Your task to perform on an android device: Clear the cart on costco. Image 0: 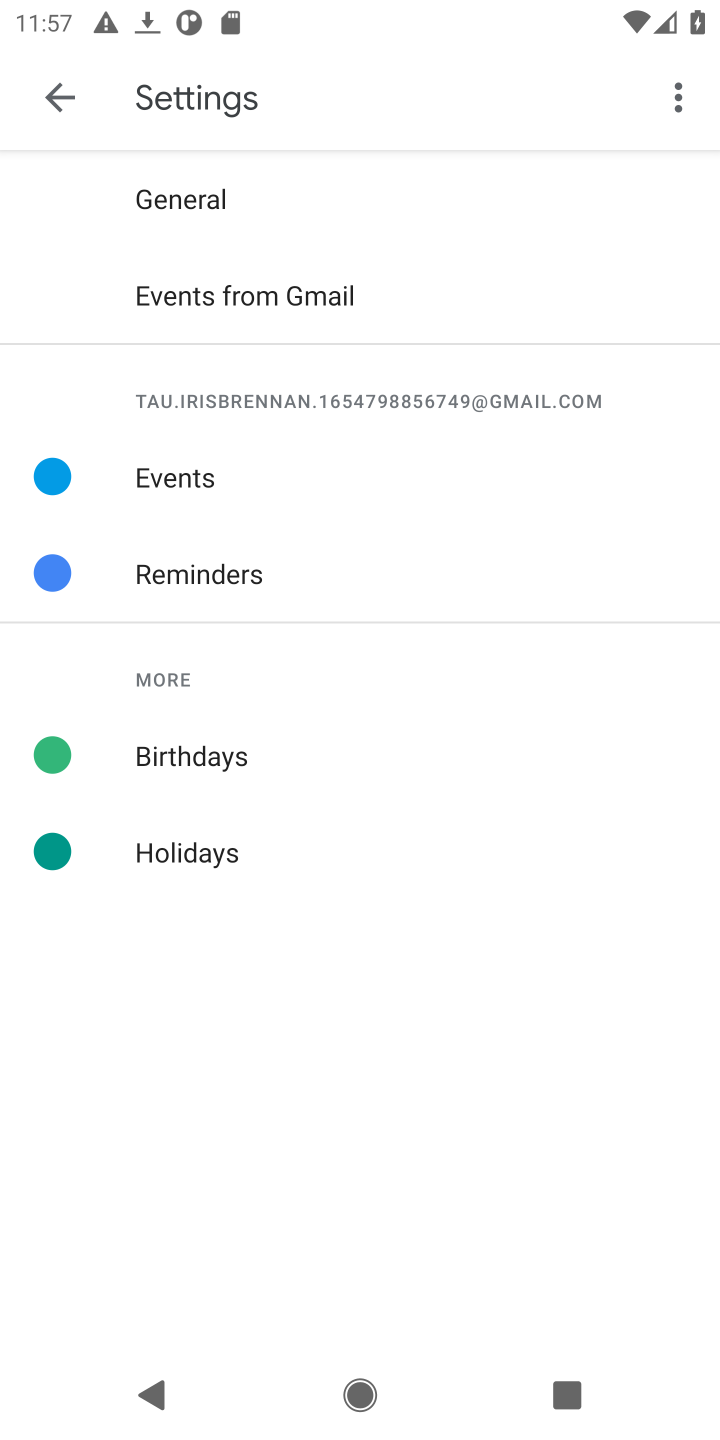
Step 0: press home button
Your task to perform on an android device: Clear the cart on costco. Image 1: 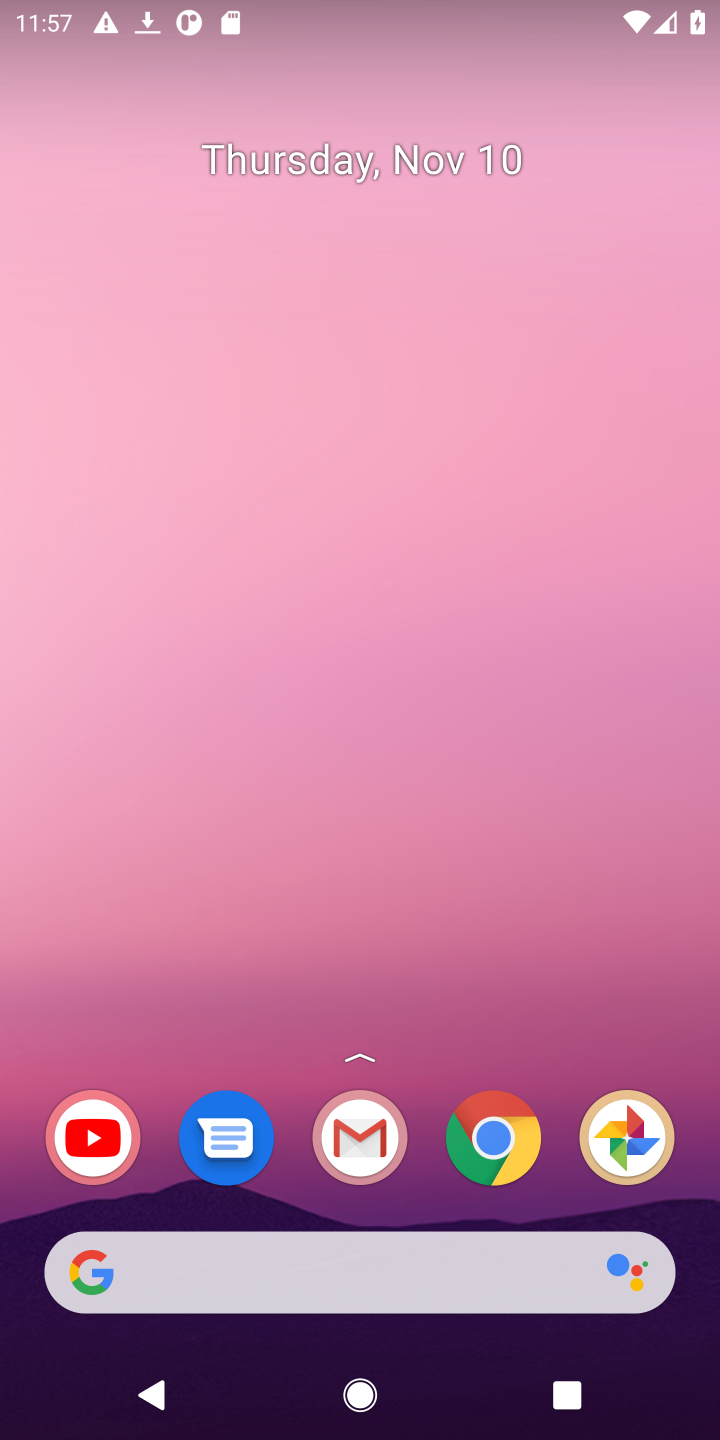
Step 1: click (504, 1154)
Your task to perform on an android device: Clear the cart on costco. Image 2: 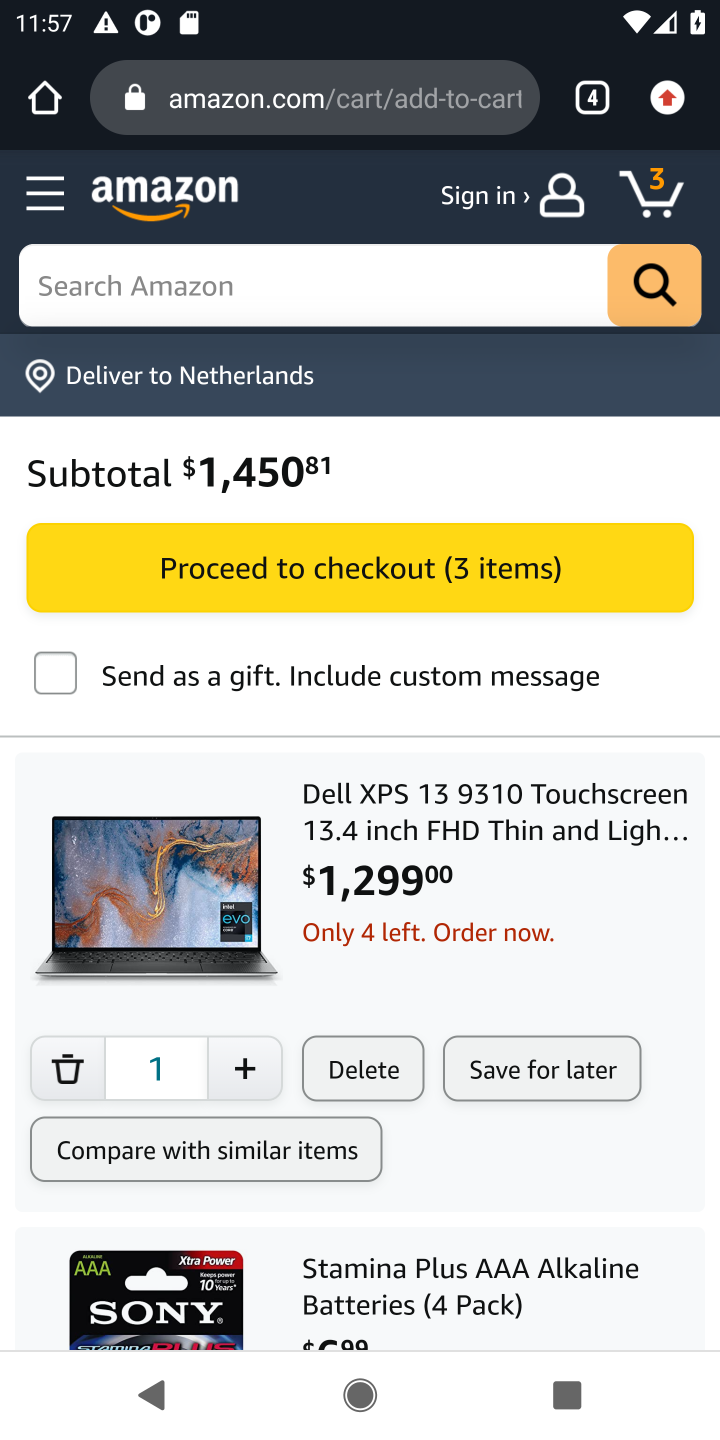
Step 2: click (649, 208)
Your task to perform on an android device: Clear the cart on costco. Image 3: 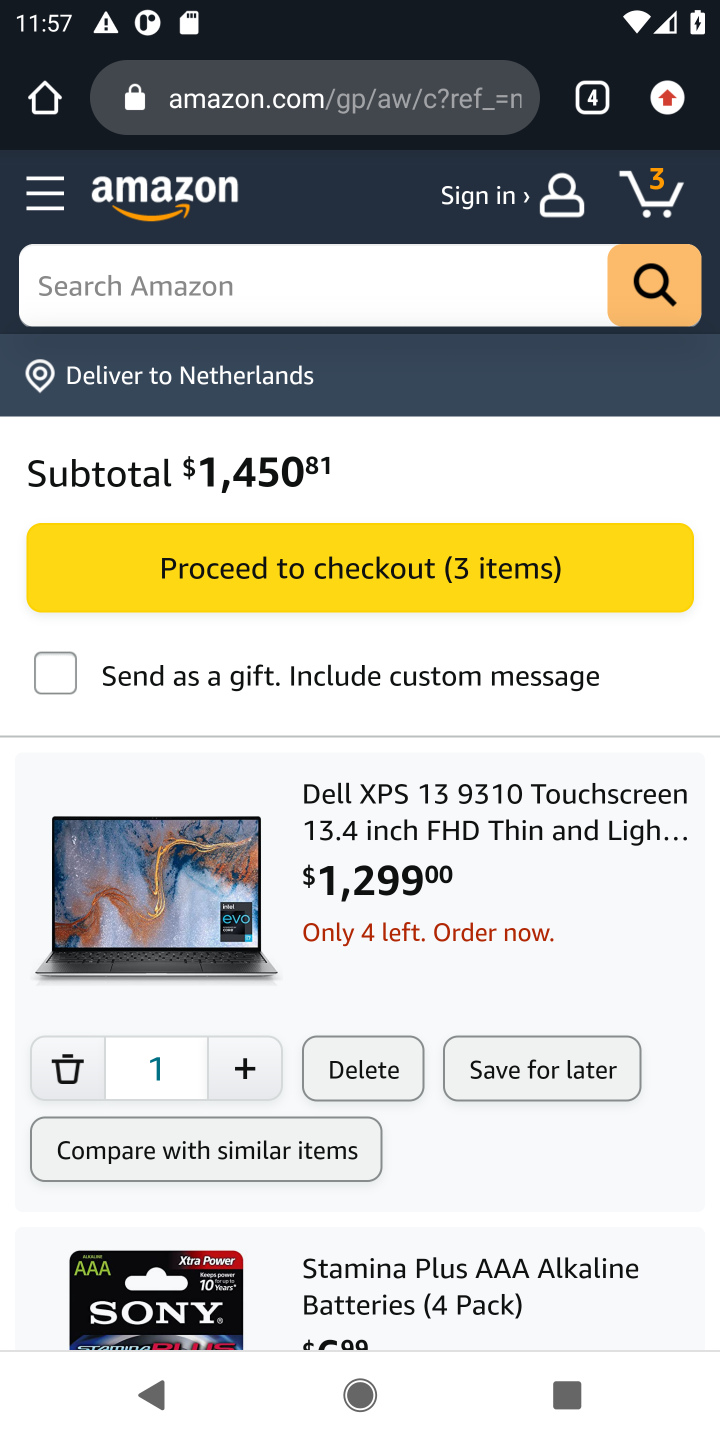
Step 3: click (596, 96)
Your task to perform on an android device: Clear the cart on costco. Image 4: 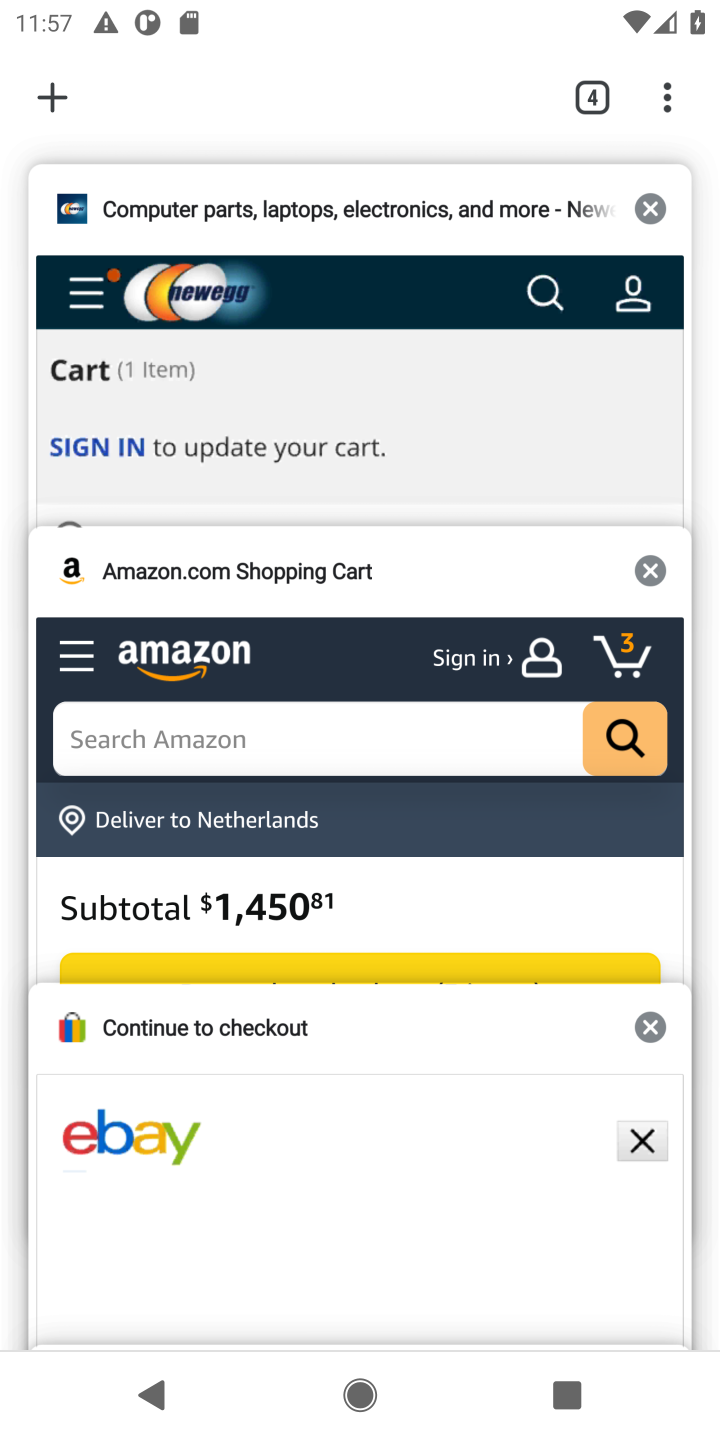
Step 4: click (60, 91)
Your task to perform on an android device: Clear the cart on costco. Image 5: 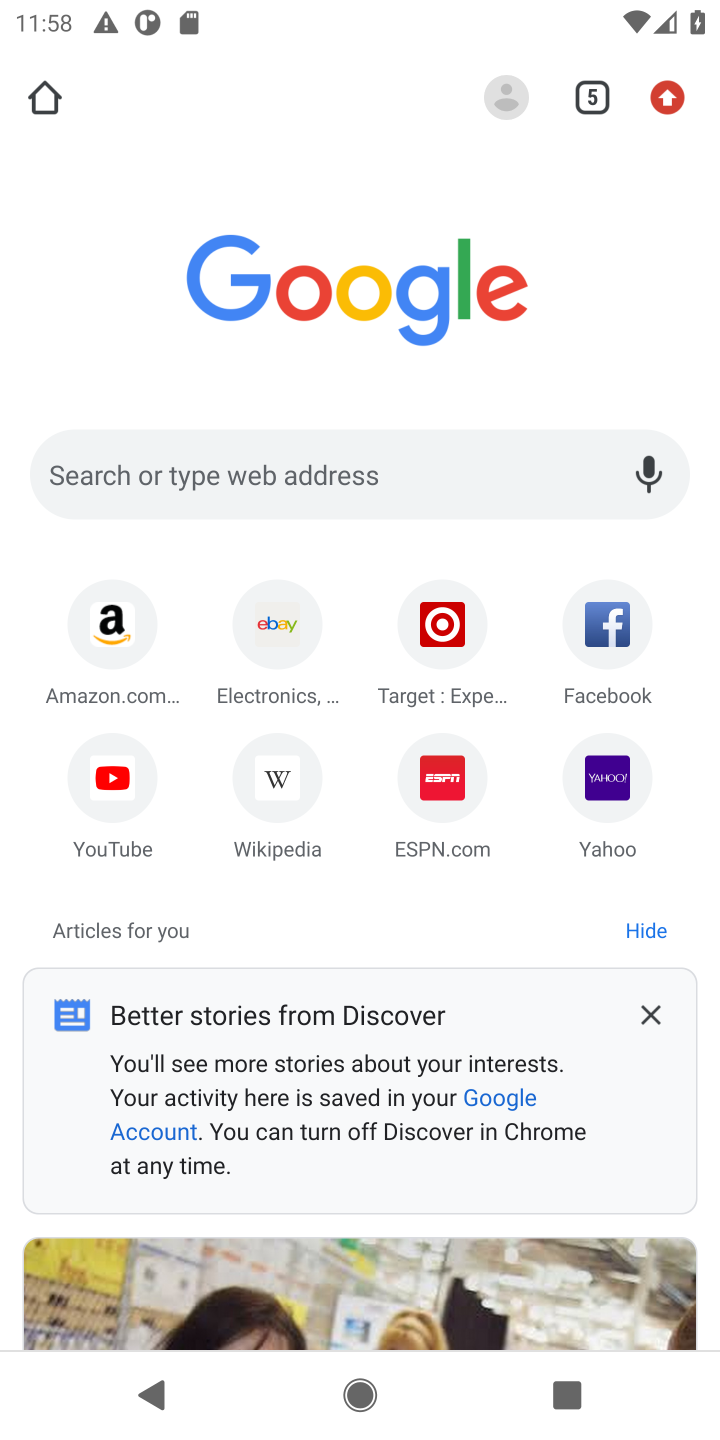
Step 5: click (304, 480)
Your task to perform on an android device: Clear the cart on costco. Image 6: 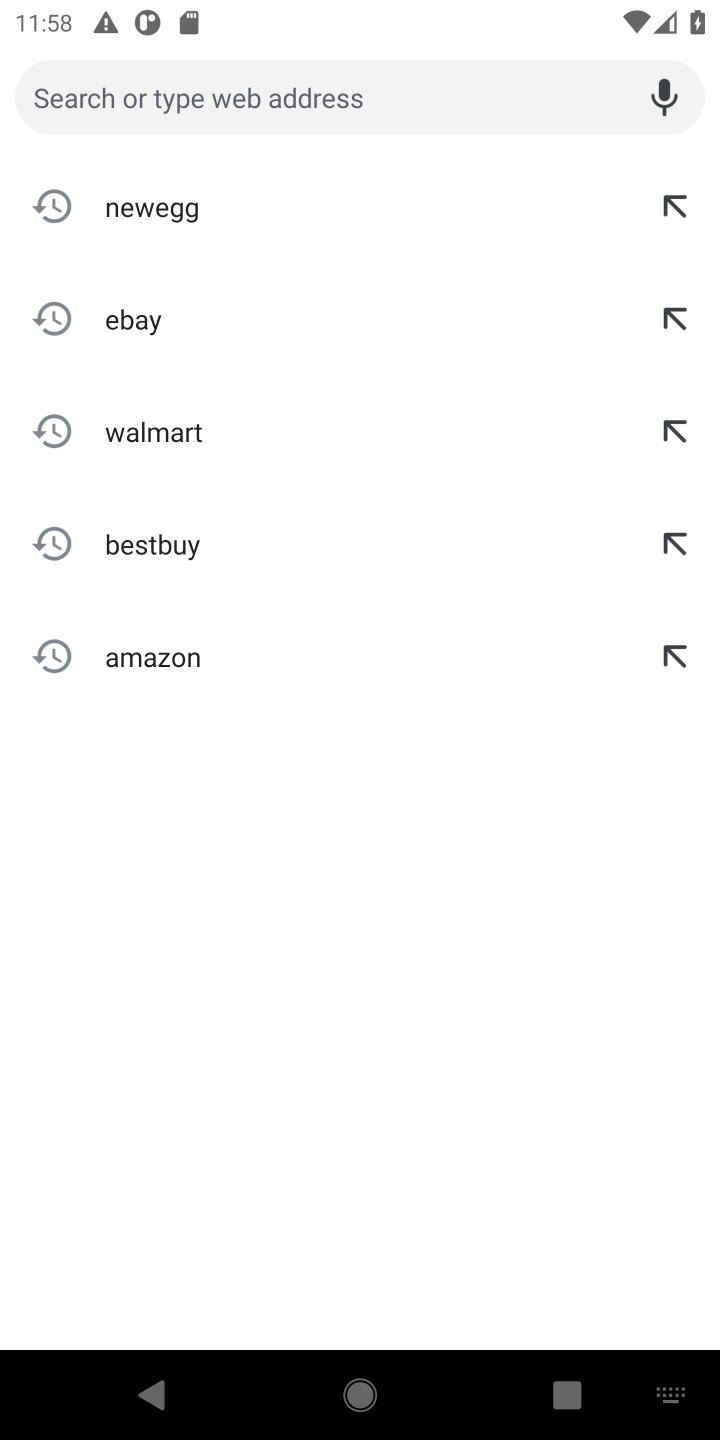
Step 6: type "costco"
Your task to perform on an android device: Clear the cart on costco. Image 7: 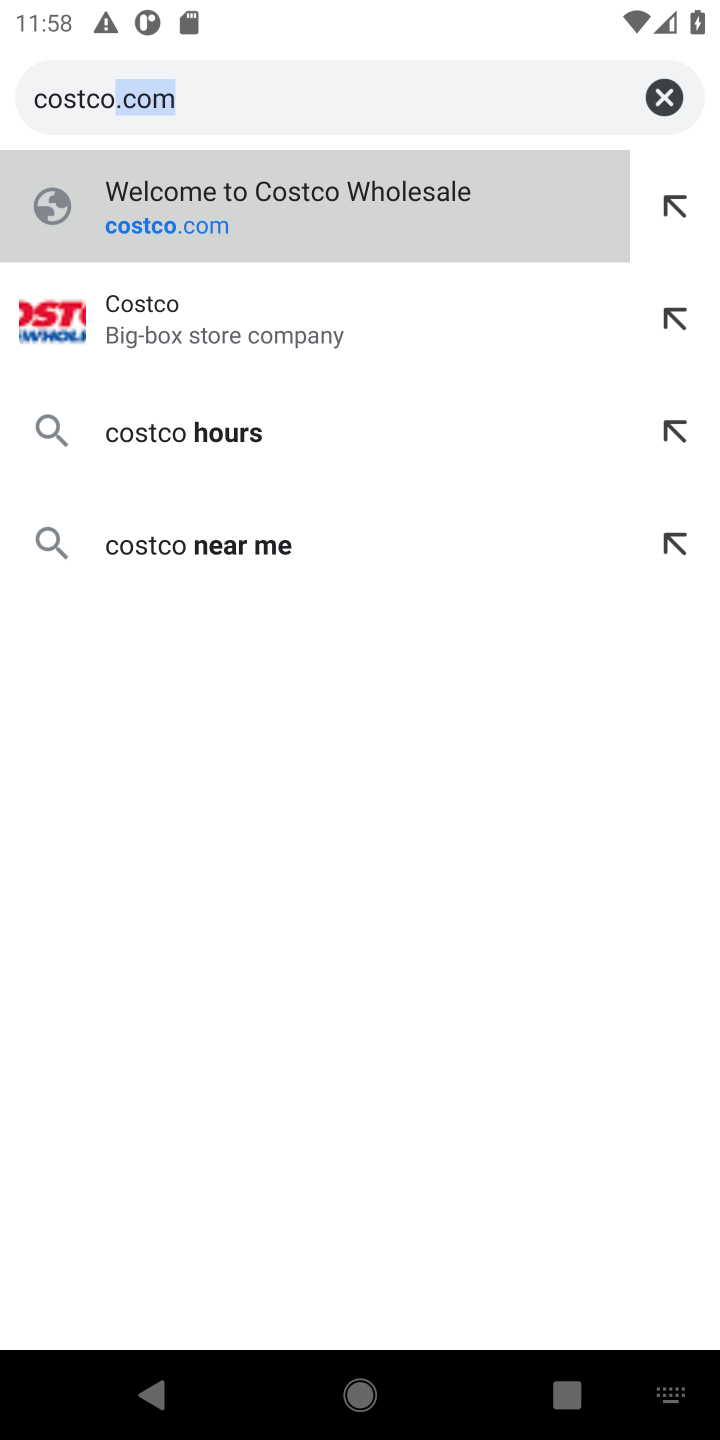
Step 7: click (426, 212)
Your task to perform on an android device: Clear the cart on costco. Image 8: 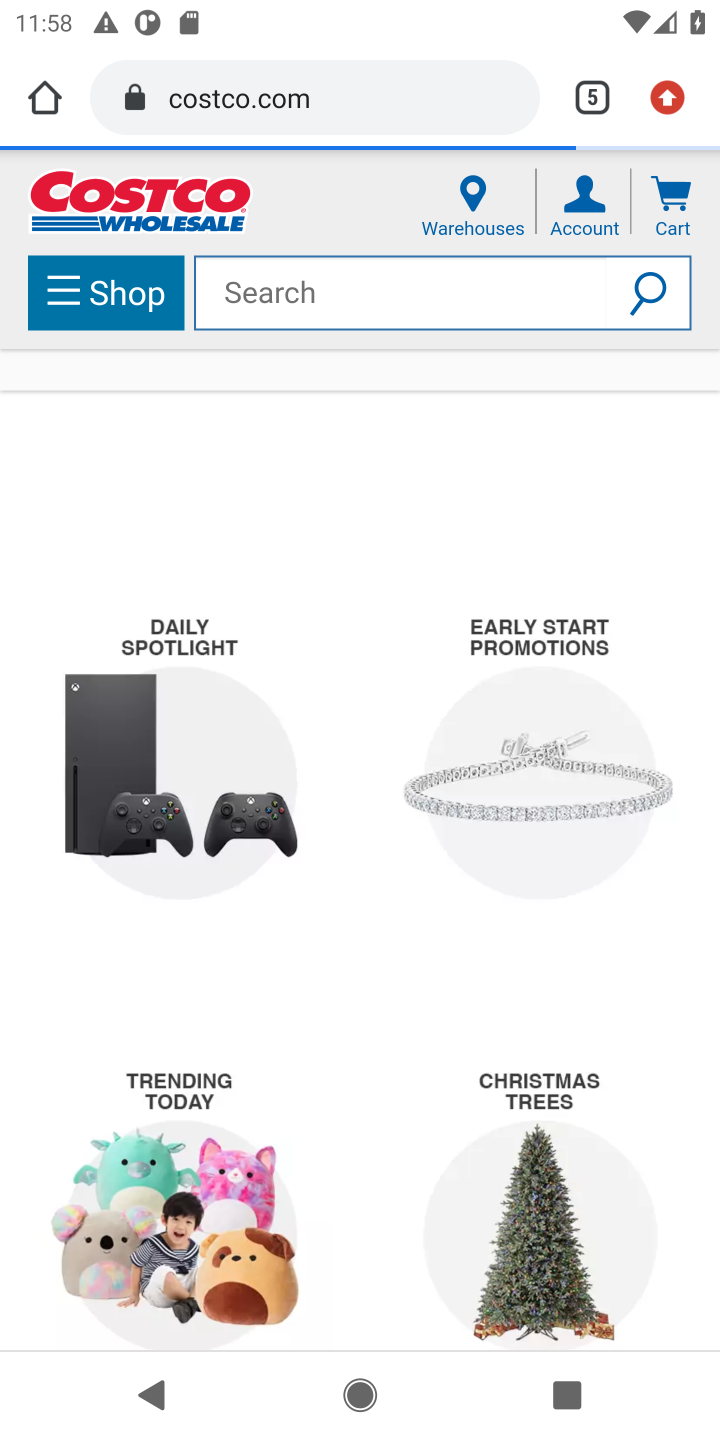
Step 8: click (674, 206)
Your task to perform on an android device: Clear the cart on costco. Image 9: 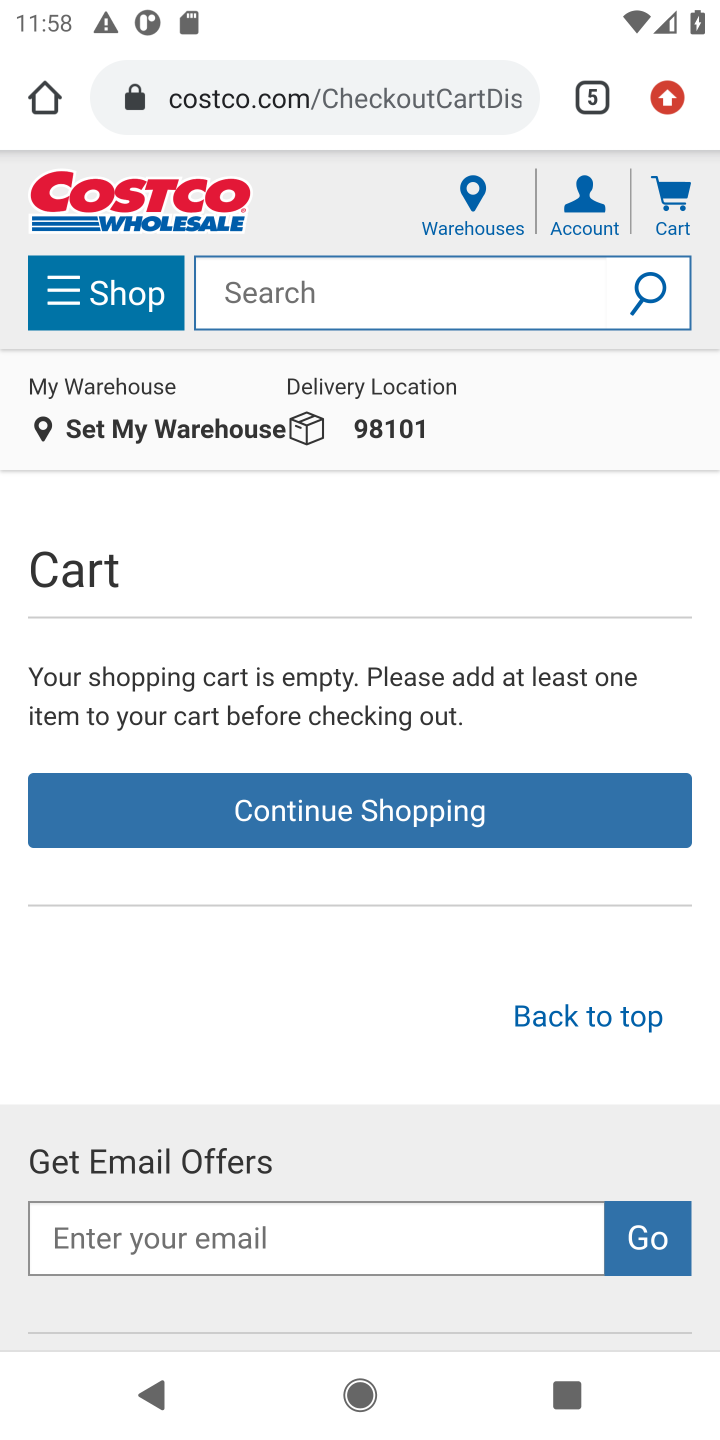
Step 9: task complete